Your task to perform on an android device: Open Google Chrome and open the bookmarks view Image 0: 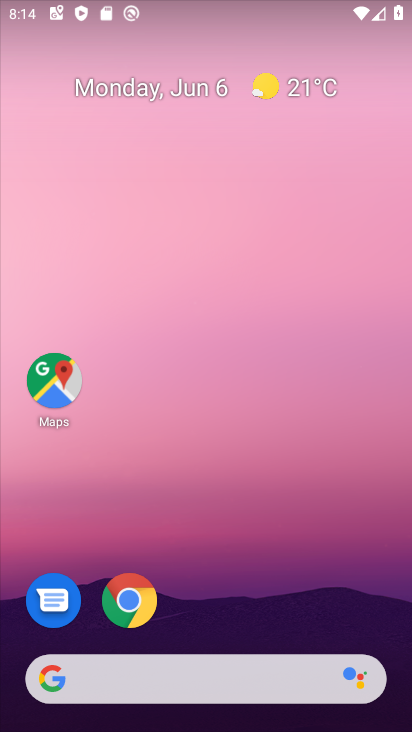
Step 0: click (130, 597)
Your task to perform on an android device: Open Google Chrome and open the bookmarks view Image 1: 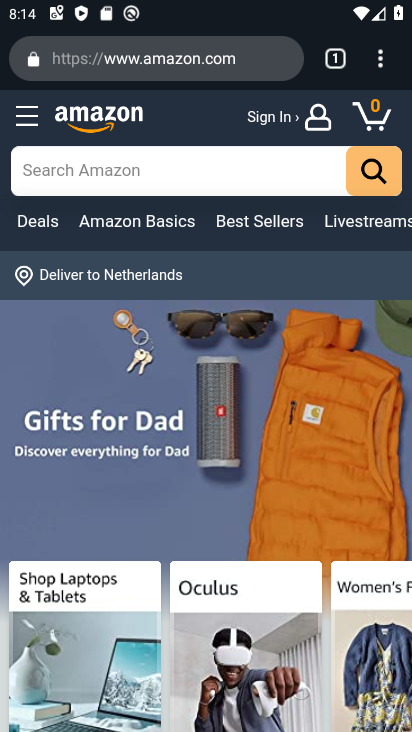
Step 1: click (378, 67)
Your task to perform on an android device: Open Google Chrome and open the bookmarks view Image 2: 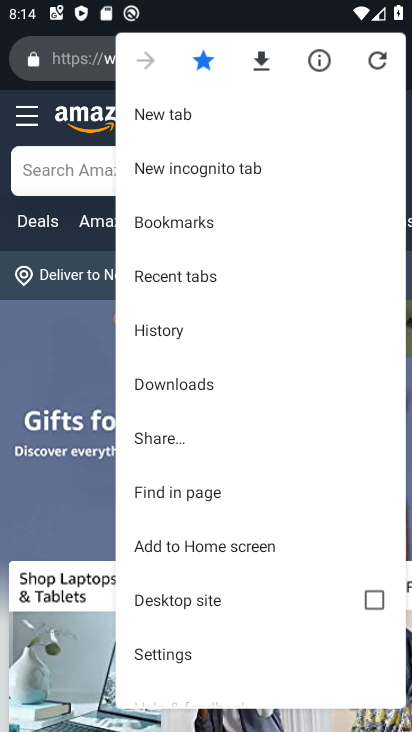
Step 2: click (176, 220)
Your task to perform on an android device: Open Google Chrome and open the bookmarks view Image 3: 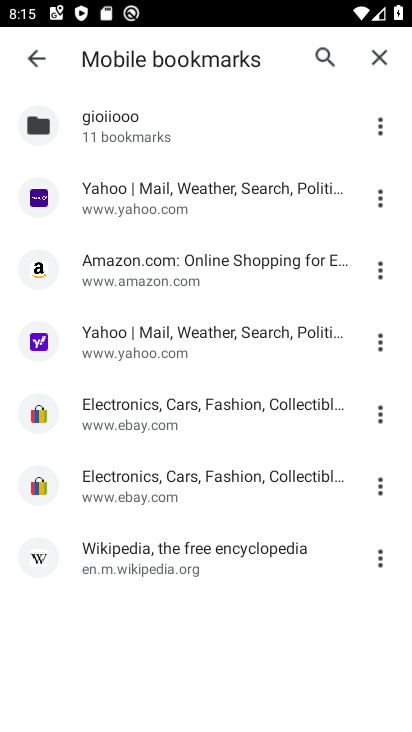
Step 3: task complete